Your task to perform on an android device: check data usage Image 0: 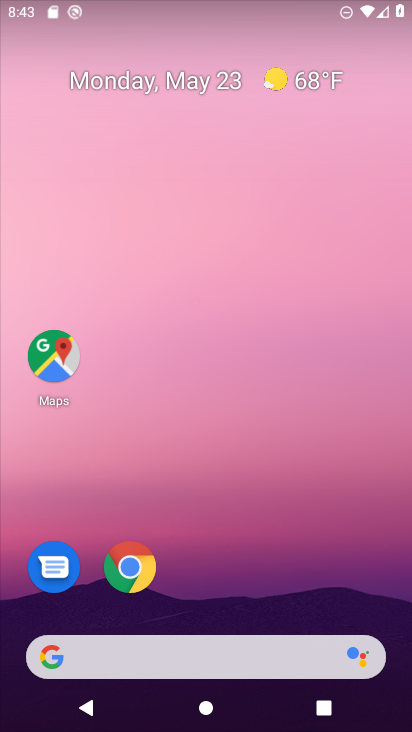
Step 0: drag from (202, 597) to (335, 56)
Your task to perform on an android device: check data usage Image 1: 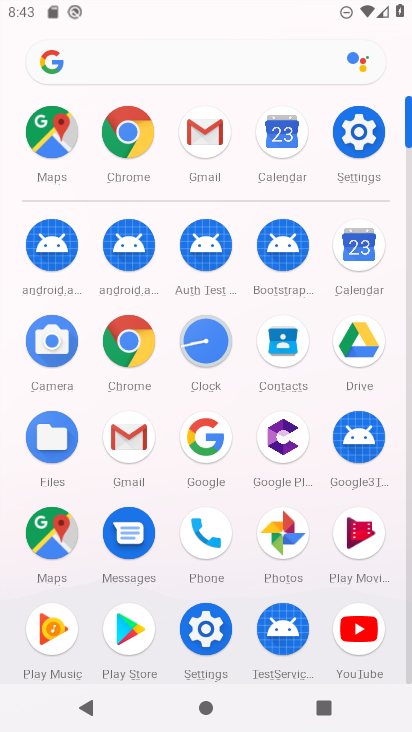
Step 1: click (343, 140)
Your task to perform on an android device: check data usage Image 2: 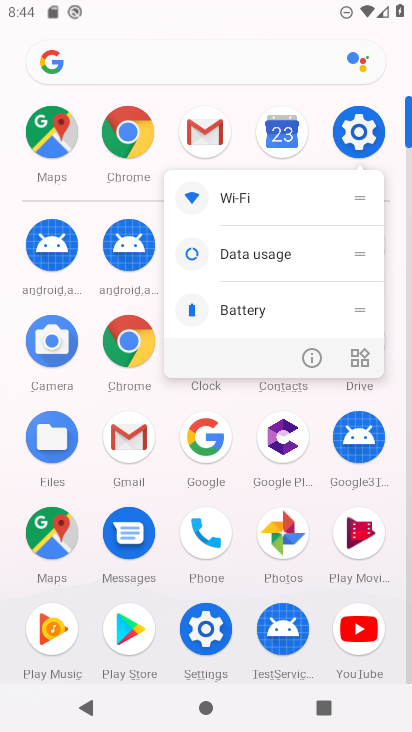
Step 2: click (305, 356)
Your task to perform on an android device: check data usage Image 3: 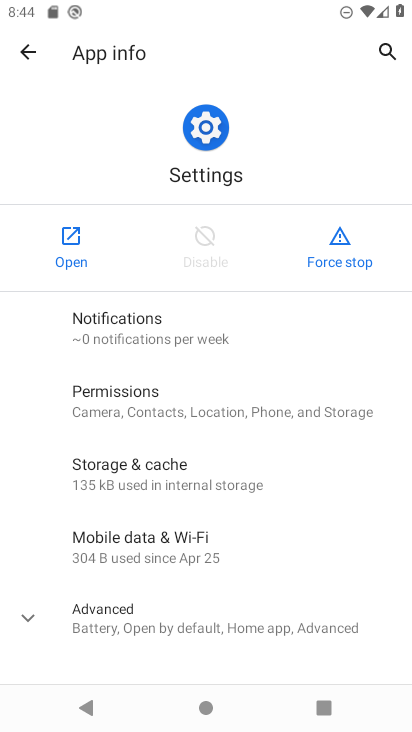
Step 3: click (66, 243)
Your task to perform on an android device: check data usage Image 4: 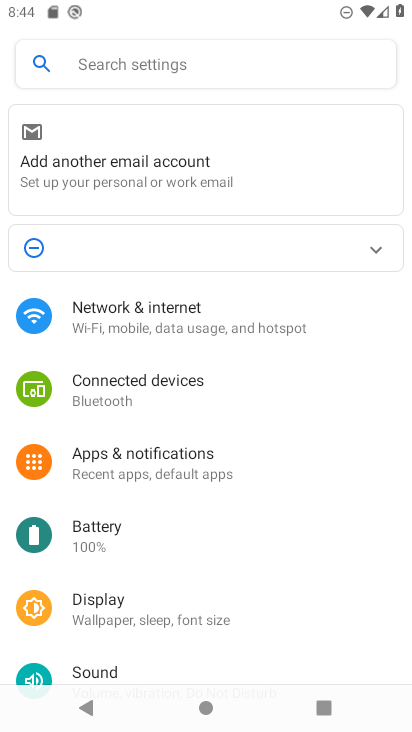
Step 4: drag from (232, 616) to (293, 136)
Your task to perform on an android device: check data usage Image 5: 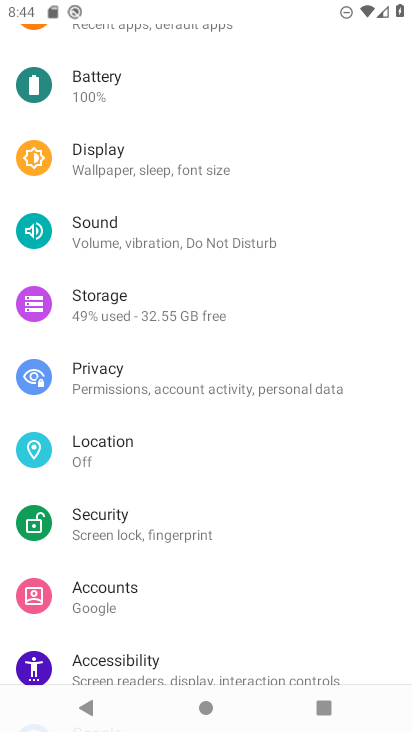
Step 5: drag from (222, 192) to (303, 672)
Your task to perform on an android device: check data usage Image 6: 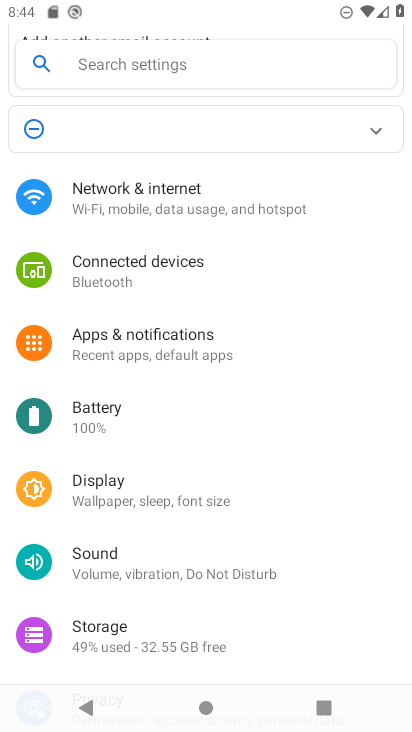
Step 6: click (164, 210)
Your task to perform on an android device: check data usage Image 7: 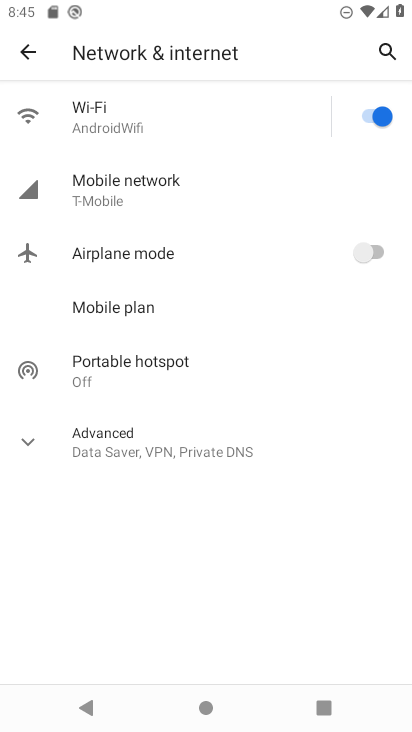
Step 7: drag from (267, 539) to (311, 194)
Your task to perform on an android device: check data usage Image 8: 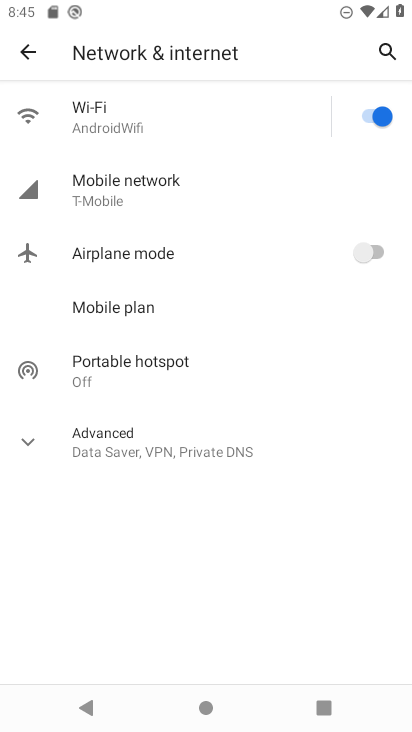
Step 8: click (142, 179)
Your task to perform on an android device: check data usage Image 9: 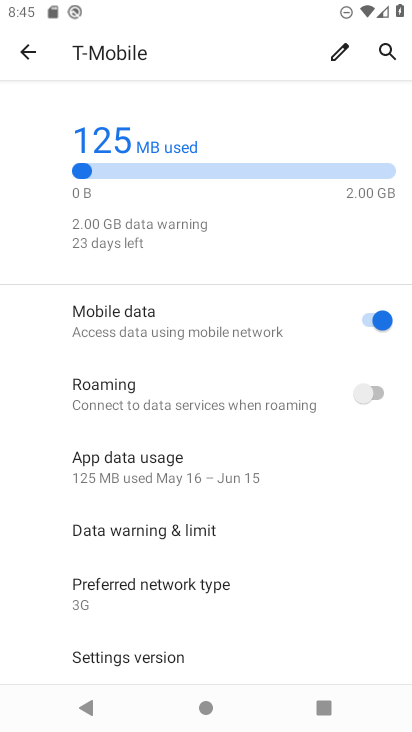
Step 9: drag from (235, 543) to (325, 202)
Your task to perform on an android device: check data usage Image 10: 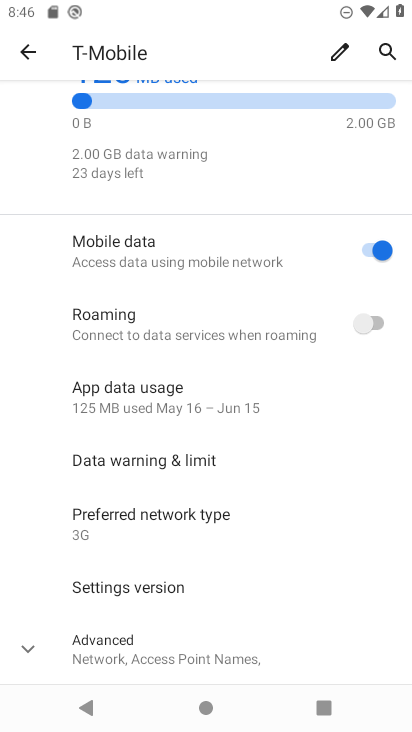
Step 10: drag from (193, 620) to (246, 320)
Your task to perform on an android device: check data usage Image 11: 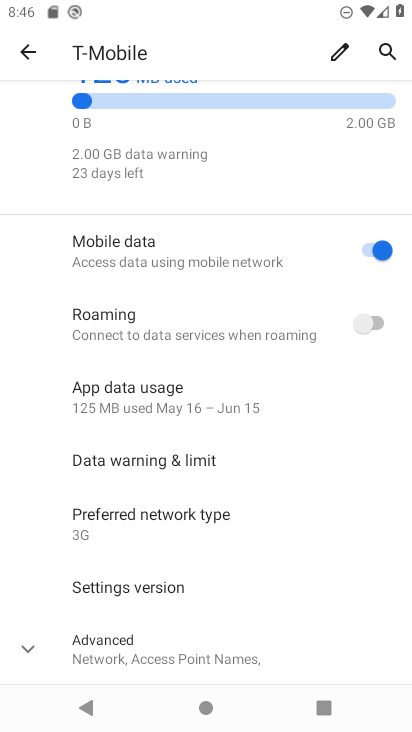
Step 11: drag from (190, 512) to (265, 202)
Your task to perform on an android device: check data usage Image 12: 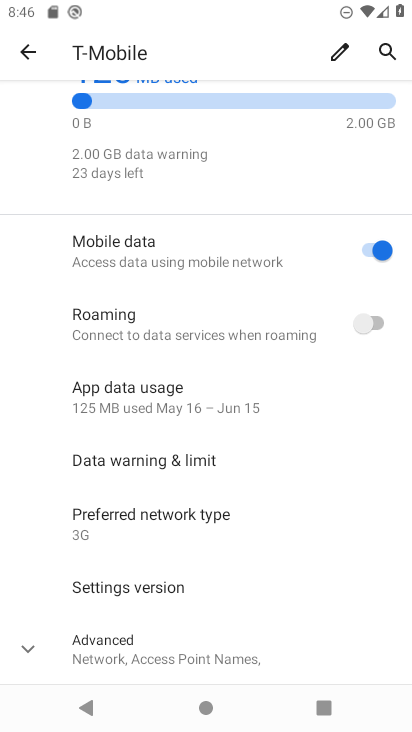
Step 12: drag from (235, 214) to (235, 547)
Your task to perform on an android device: check data usage Image 13: 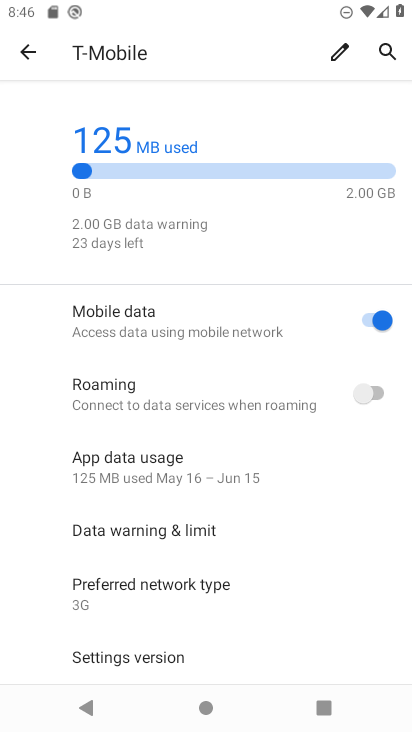
Step 13: drag from (242, 485) to (323, 234)
Your task to perform on an android device: check data usage Image 14: 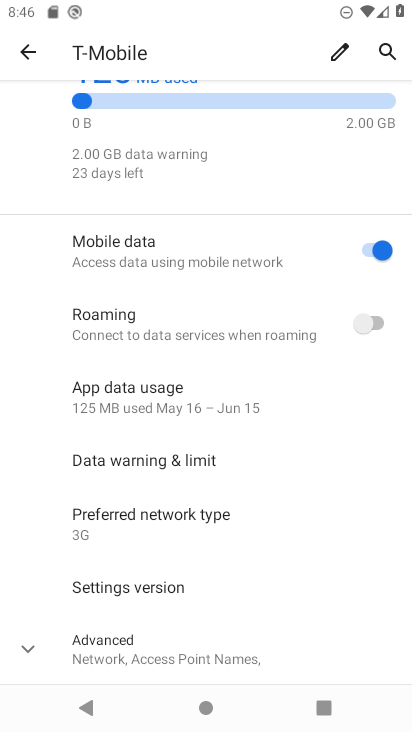
Step 14: drag from (251, 571) to (332, 232)
Your task to perform on an android device: check data usage Image 15: 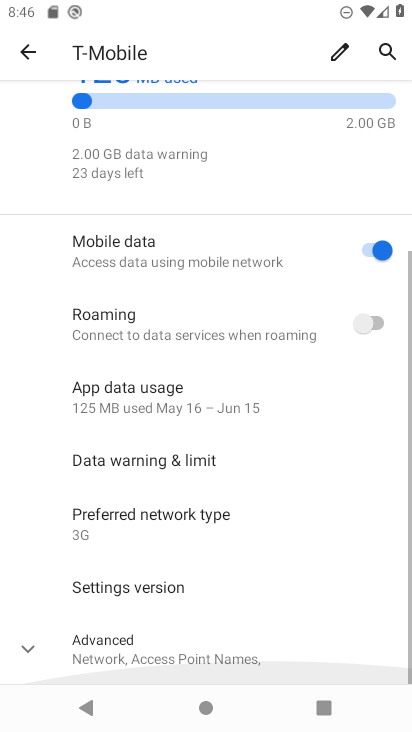
Step 15: drag from (313, 154) to (321, 660)
Your task to perform on an android device: check data usage Image 16: 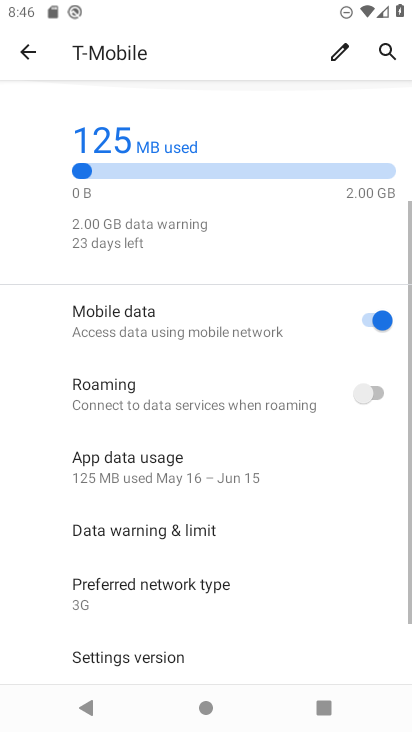
Step 16: drag from (233, 590) to (284, 156)
Your task to perform on an android device: check data usage Image 17: 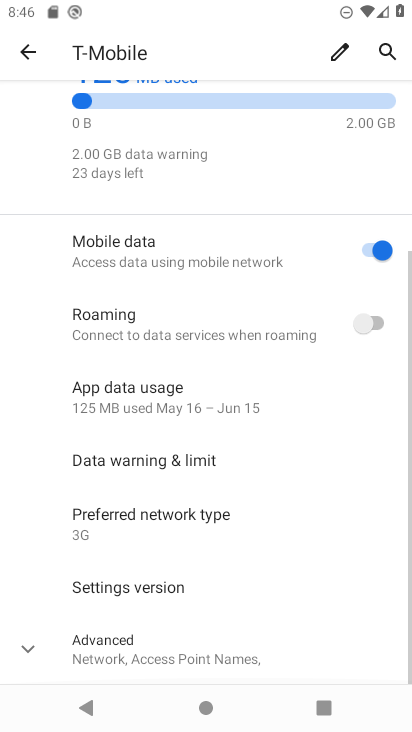
Step 17: drag from (284, 108) to (248, 720)
Your task to perform on an android device: check data usage Image 18: 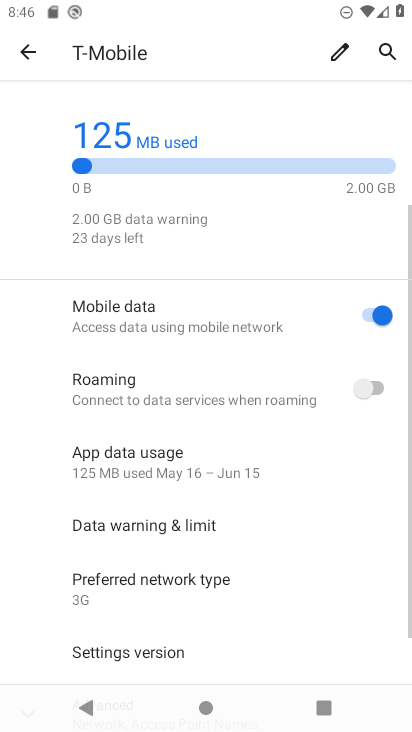
Step 18: drag from (201, 610) to (267, 254)
Your task to perform on an android device: check data usage Image 19: 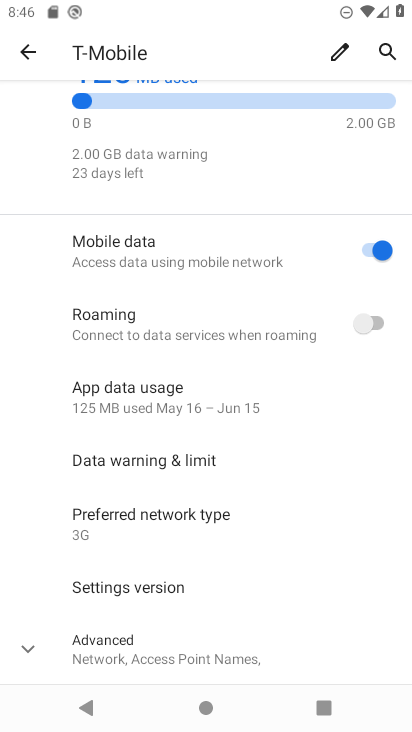
Step 19: drag from (266, 221) to (288, 706)
Your task to perform on an android device: check data usage Image 20: 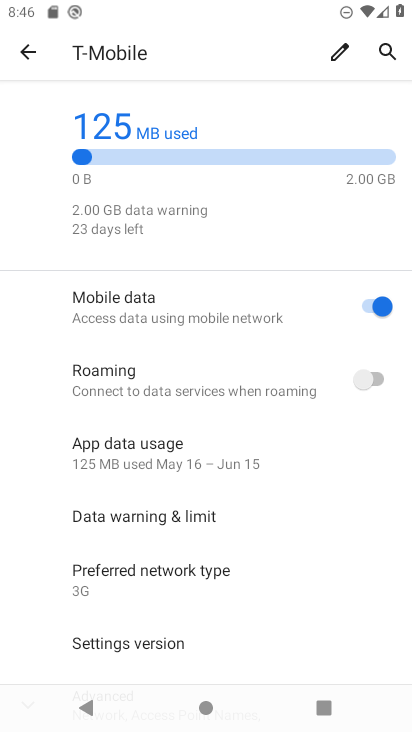
Step 20: click (202, 130)
Your task to perform on an android device: check data usage Image 21: 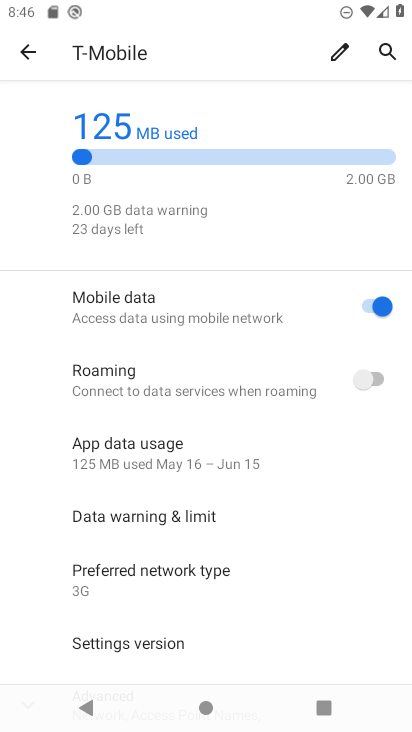
Step 21: task complete